Your task to perform on an android device: stop showing notifications on the lock screen Image 0: 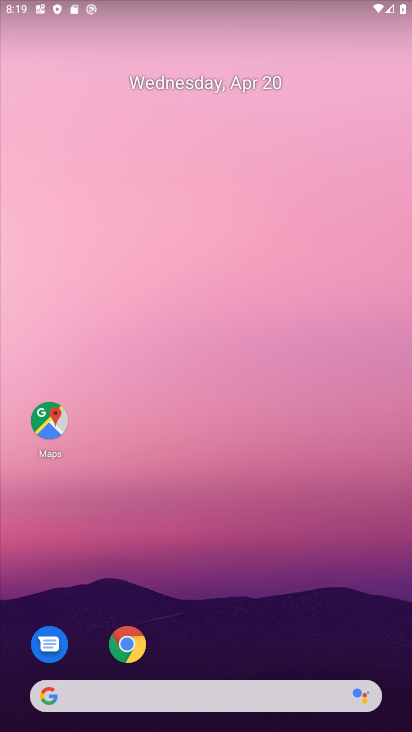
Step 0: drag from (314, 632) to (274, 72)
Your task to perform on an android device: stop showing notifications on the lock screen Image 1: 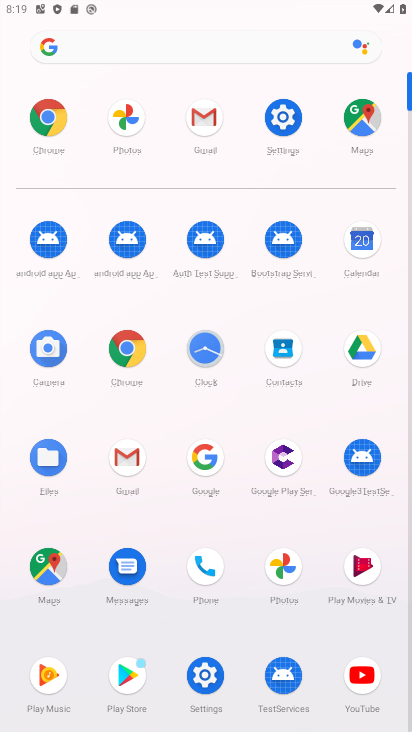
Step 1: click (283, 125)
Your task to perform on an android device: stop showing notifications on the lock screen Image 2: 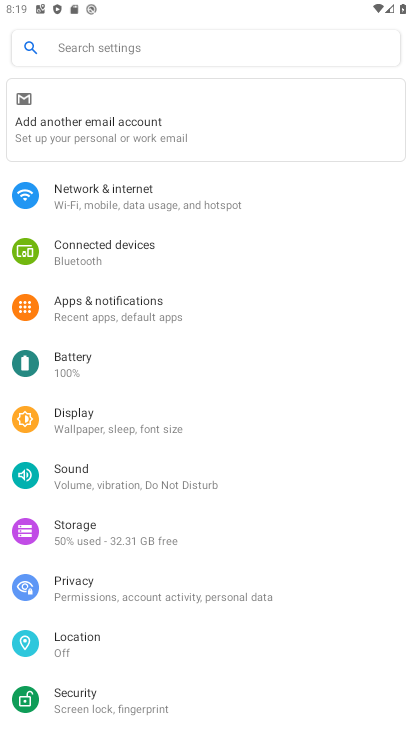
Step 2: click (159, 304)
Your task to perform on an android device: stop showing notifications on the lock screen Image 3: 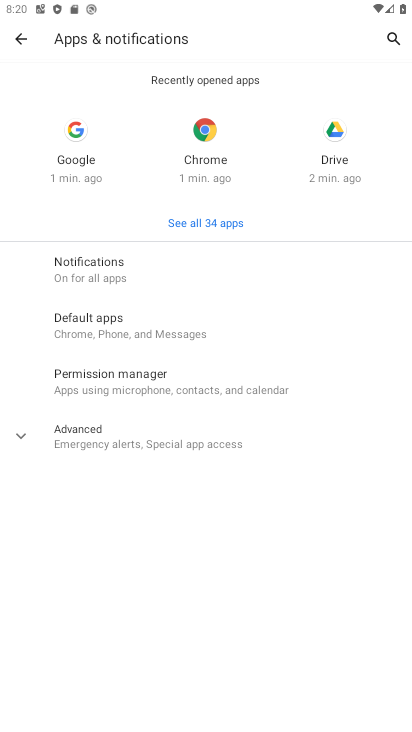
Step 3: click (153, 281)
Your task to perform on an android device: stop showing notifications on the lock screen Image 4: 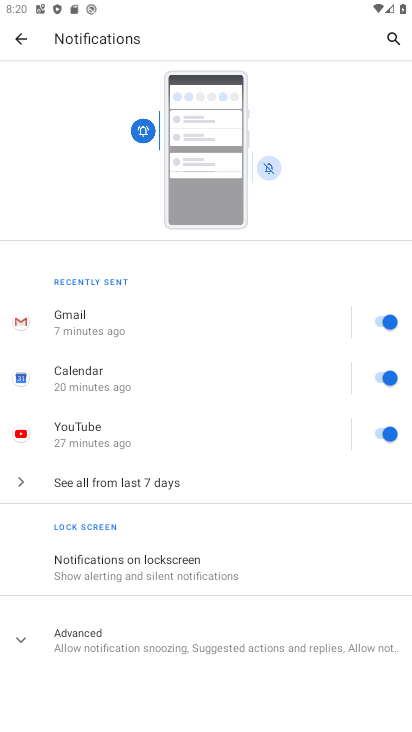
Step 4: click (153, 539)
Your task to perform on an android device: stop showing notifications on the lock screen Image 5: 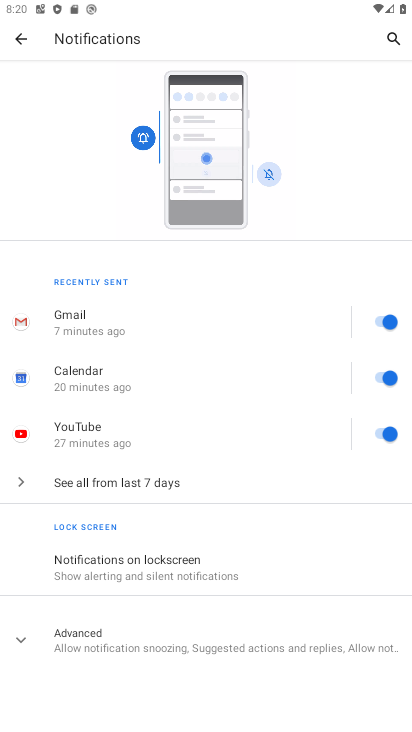
Step 5: click (199, 562)
Your task to perform on an android device: stop showing notifications on the lock screen Image 6: 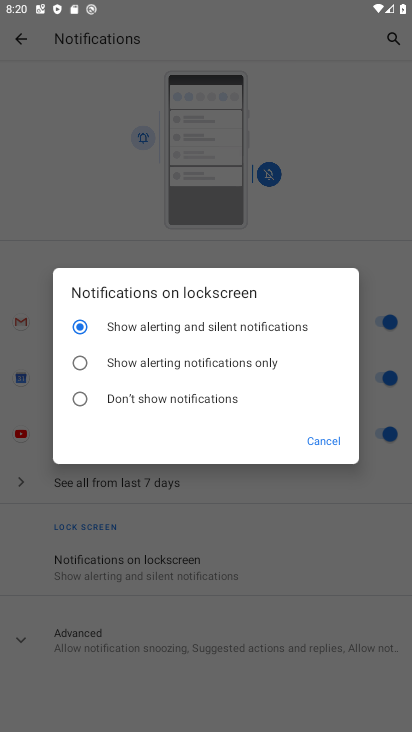
Step 6: click (76, 397)
Your task to perform on an android device: stop showing notifications on the lock screen Image 7: 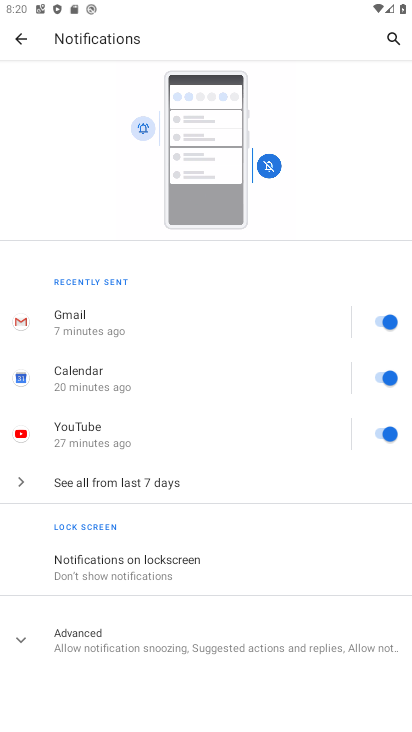
Step 7: task complete